Your task to perform on an android device: Open Maps and search for coffee Image 0: 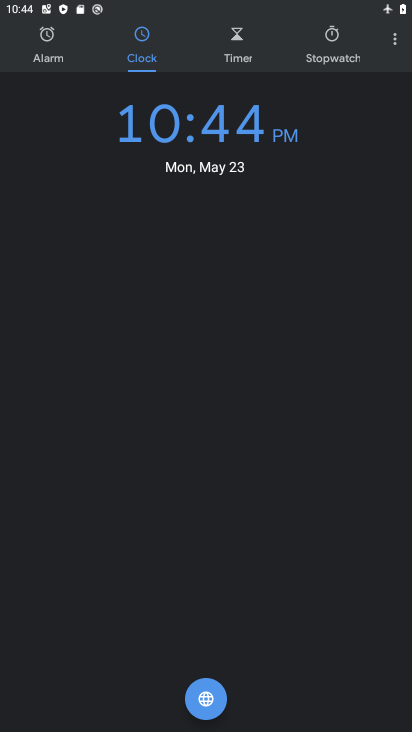
Step 0: press back button
Your task to perform on an android device: Open Maps and search for coffee Image 1: 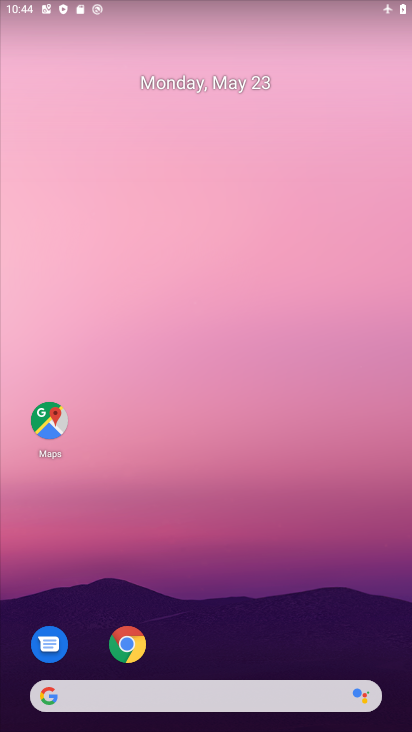
Step 1: drag from (265, 731) to (137, 9)
Your task to perform on an android device: Open Maps and search for coffee Image 2: 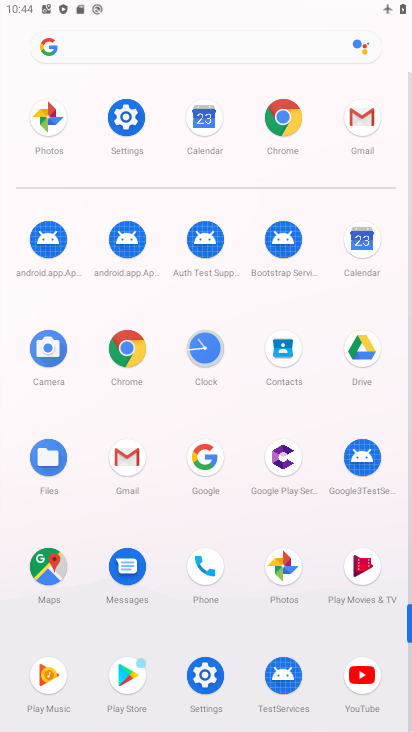
Step 2: click (42, 571)
Your task to perform on an android device: Open Maps and search for coffee Image 3: 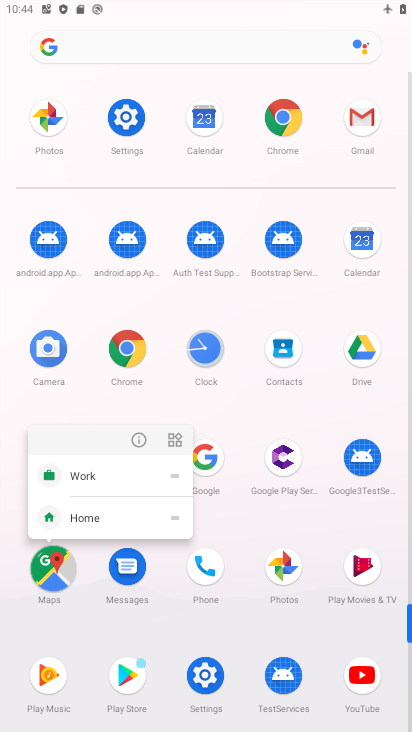
Step 3: click (52, 571)
Your task to perform on an android device: Open Maps and search for coffee Image 4: 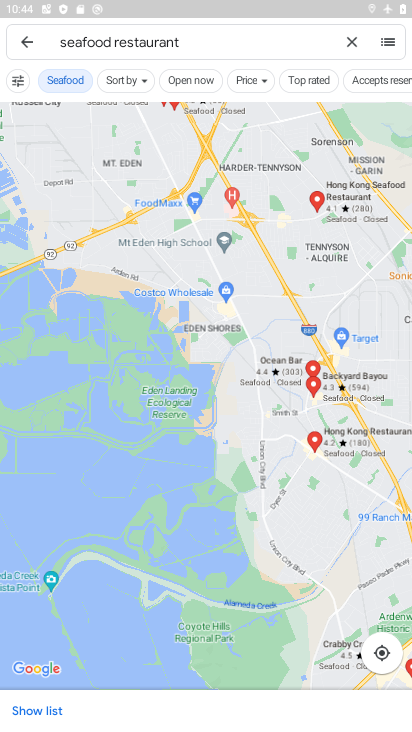
Step 4: click (29, 38)
Your task to perform on an android device: Open Maps and search for coffee Image 5: 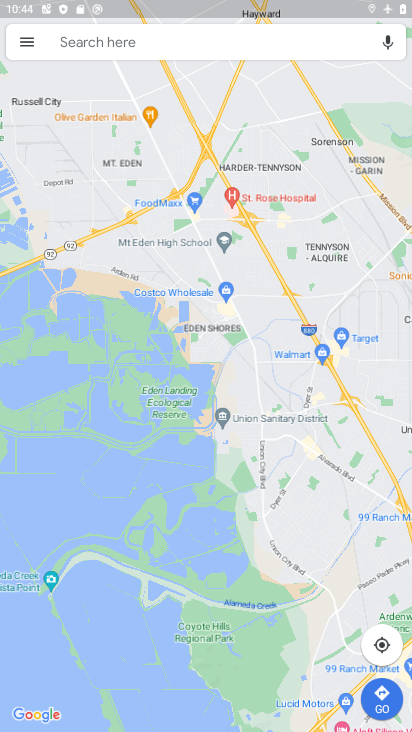
Step 5: drag from (76, 35) to (394, 181)
Your task to perform on an android device: Open Maps and search for coffee Image 6: 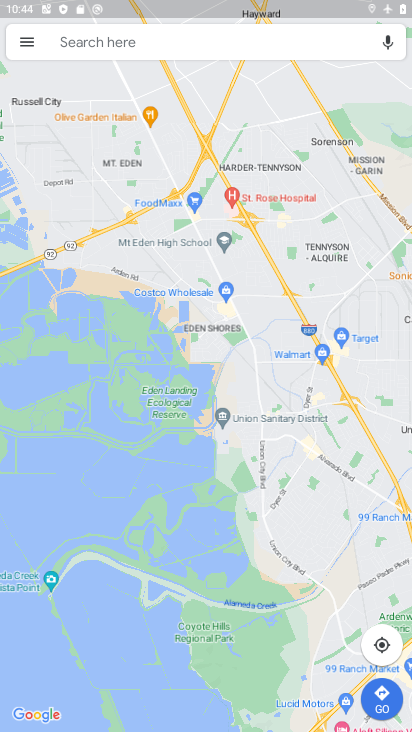
Step 6: click (82, 48)
Your task to perform on an android device: Open Maps and search for coffee Image 7: 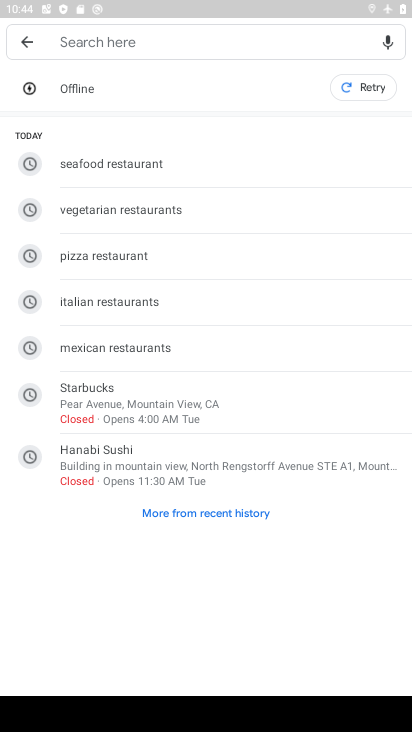
Step 7: type "coffee"
Your task to perform on an android device: Open Maps and search for coffee Image 8: 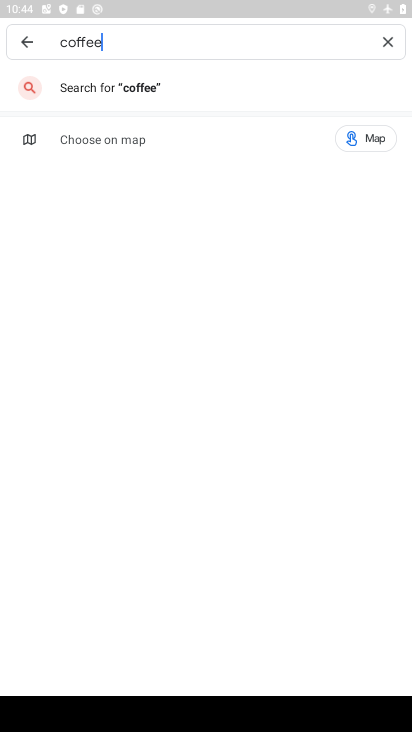
Step 8: click (134, 90)
Your task to perform on an android device: Open Maps and search for coffee Image 9: 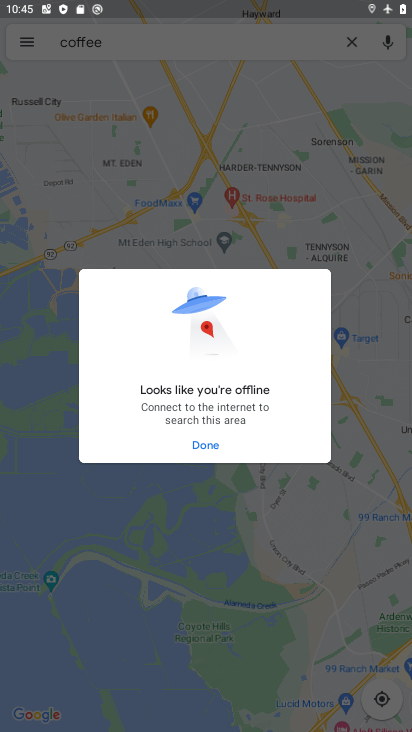
Step 9: task complete